Your task to perform on an android device: delete location history Image 0: 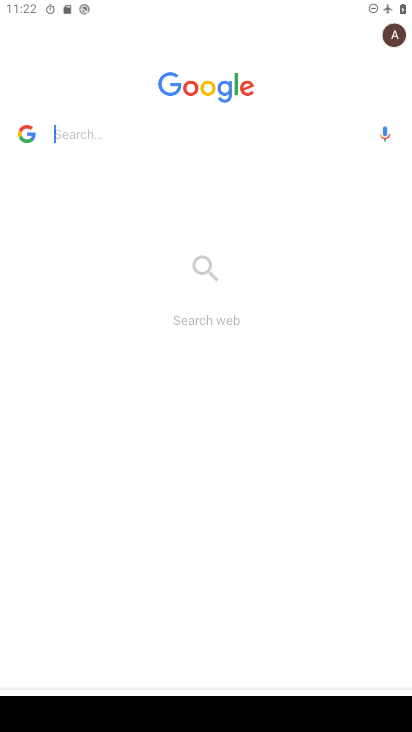
Step 0: press home button
Your task to perform on an android device: delete location history Image 1: 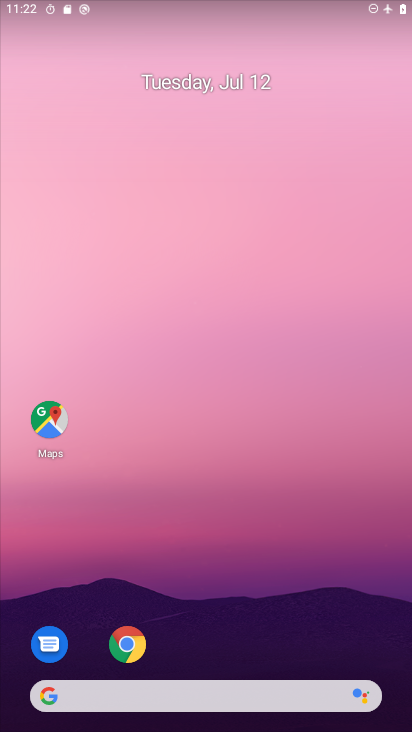
Step 1: drag from (213, 642) to (213, 225)
Your task to perform on an android device: delete location history Image 2: 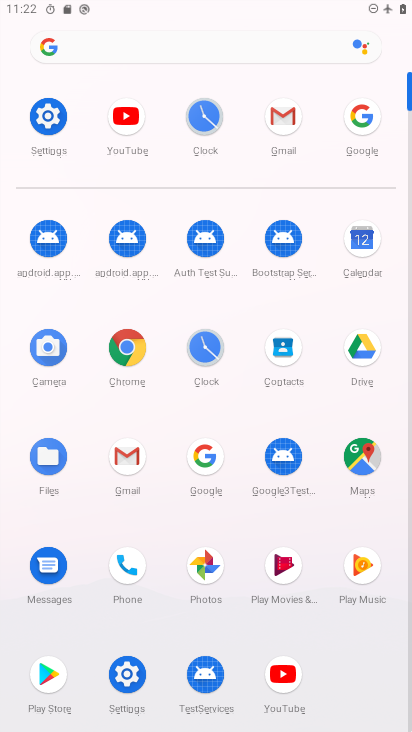
Step 2: click (59, 135)
Your task to perform on an android device: delete location history Image 3: 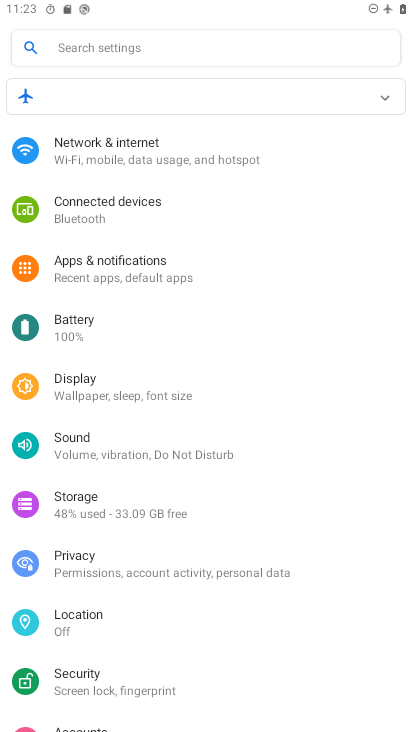
Step 3: click (101, 630)
Your task to perform on an android device: delete location history Image 4: 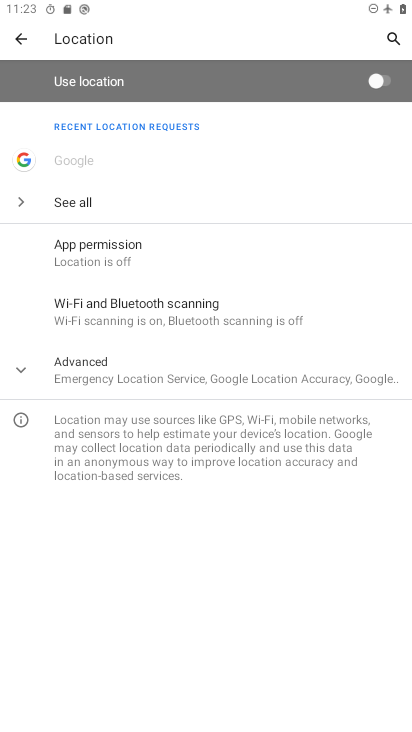
Step 4: click (116, 368)
Your task to perform on an android device: delete location history Image 5: 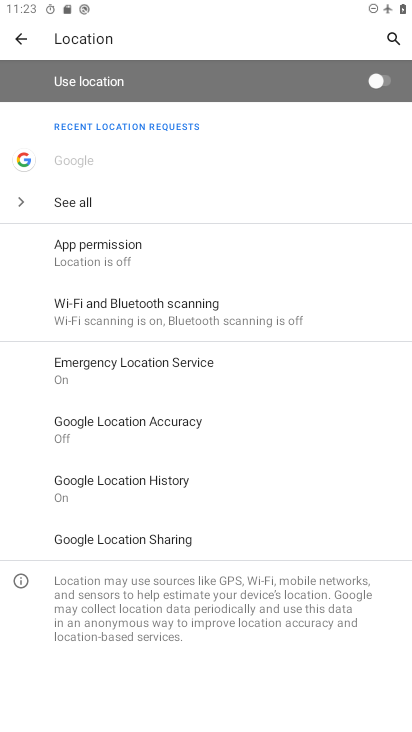
Step 5: click (161, 480)
Your task to perform on an android device: delete location history Image 6: 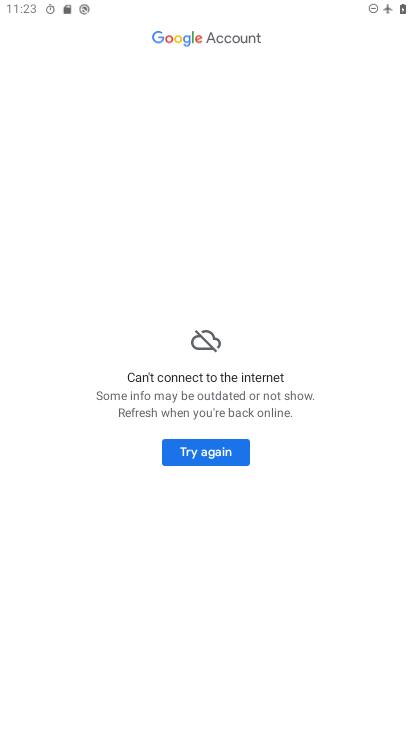
Step 6: click (237, 453)
Your task to perform on an android device: delete location history Image 7: 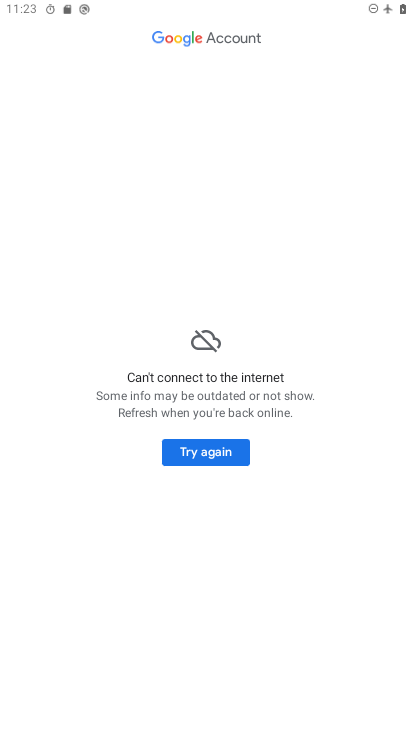
Step 7: task complete